Your task to perform on an android device: Open accessibility settings Image 0: 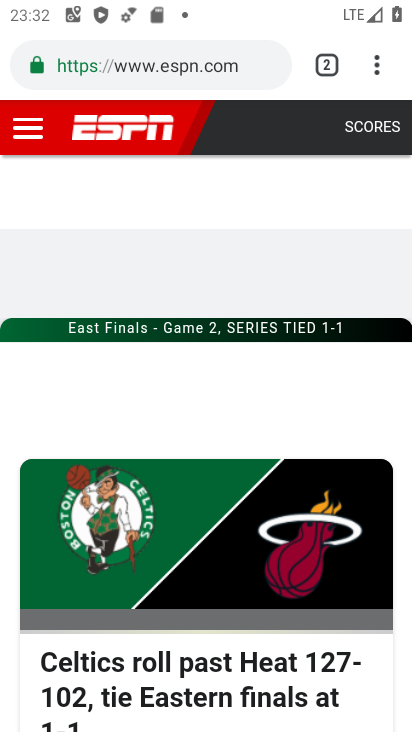
Step 0: press home button
Your task to perform on an android device: Open accessibility settings Image 1: 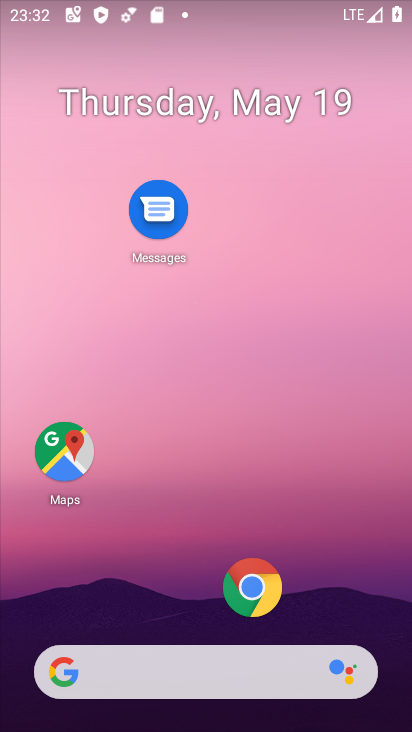
Step 1: drag from (167, 617) to (316, 7)
Your task to perform on an android device: Open accessibility settings Image 2: 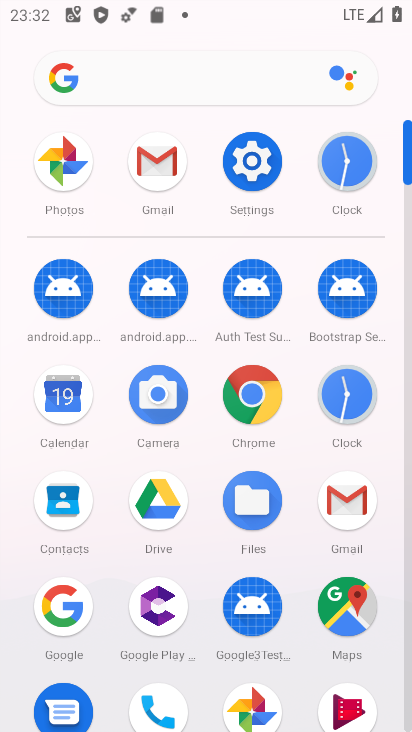
Step 2: click (240, 161)
Your task to perform on an android device: Open accessibility settings Image 3: 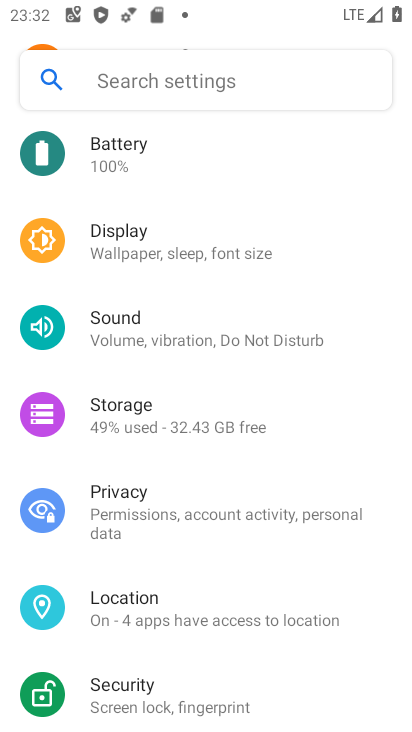
Step 3: drag from (66, 642) to (180, 119)
Your task to perform on an android device: Open accessibility settings Image 4: 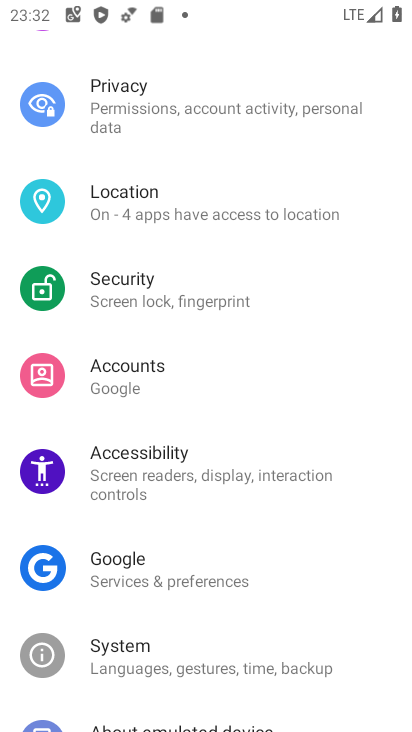
Step 4: drag from (227, 184) to (197, 638)
Your task to perform on an android device: Open accessibility settings Image 5: 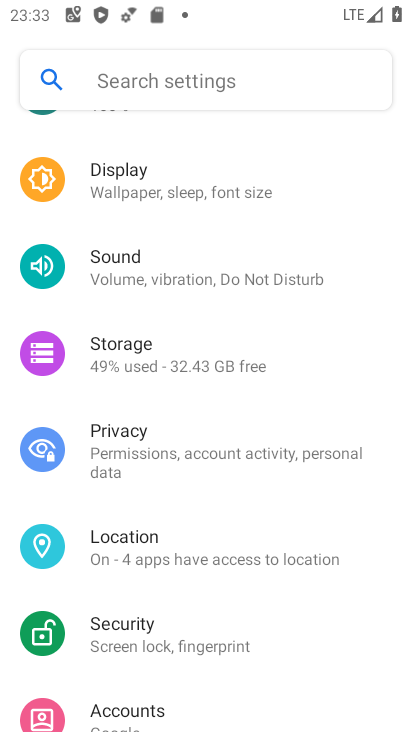
Step 5: drag from (259, 211) to (226, 682)
Your task to perform on an android device: Open accessibility settings Image 6: 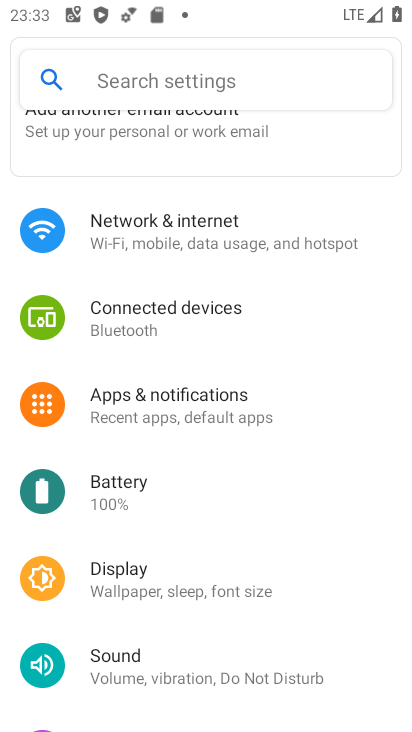
Step 6: drag from (184, 661) to (210, 412)
Your task to perform on an android device: Open accessibility settings Image 7: 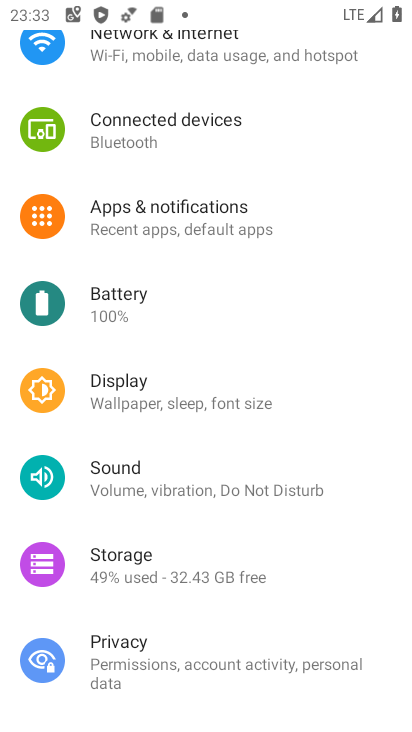
Step 7: drag from (128, 597) to (208, 222)
Your task to perform on an android device: Open accessibility settings Image 8: 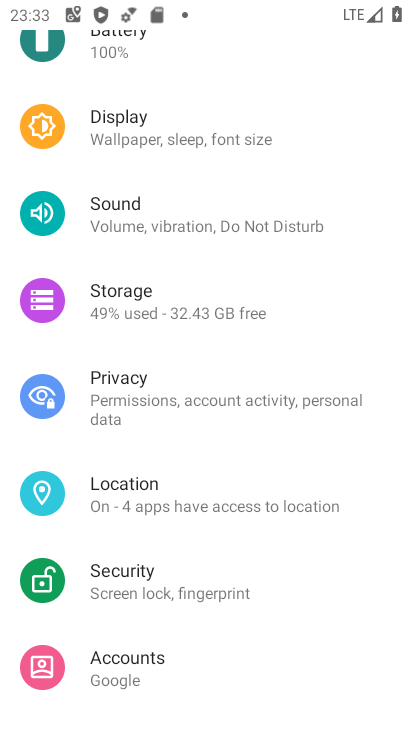
Step 8: drag from (133, 608) to (165, 148)
Your task to perform on an android device: Open accessibility settings Image 9: 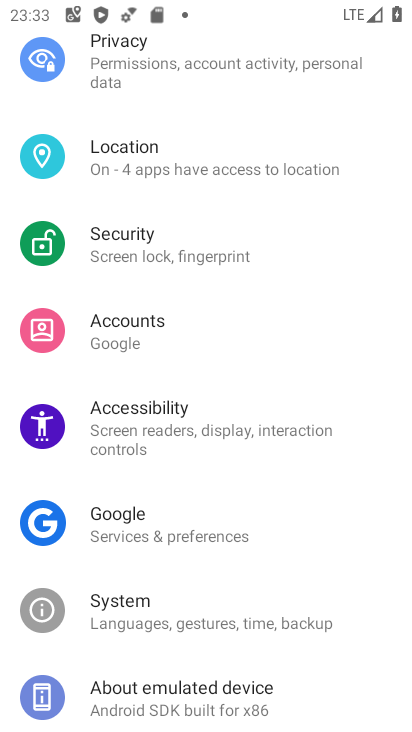
Step 9: click (195, 461)
Your task to perform on an android device: Open accessibility settings Image 10: 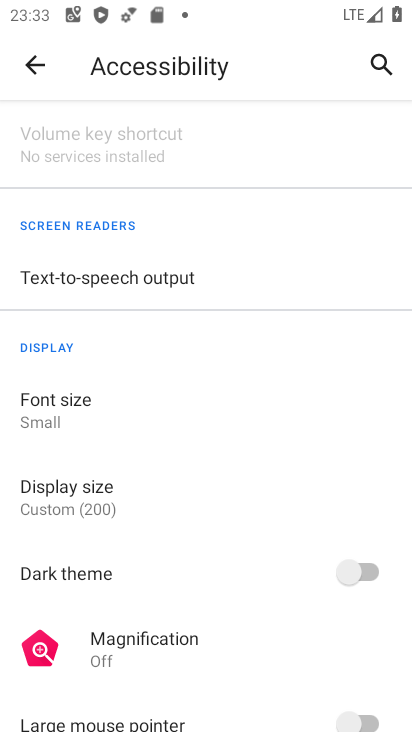
Step 10: task complete